Your task to perform on an android device: turn off priority inbox in the gmail app Image 0: 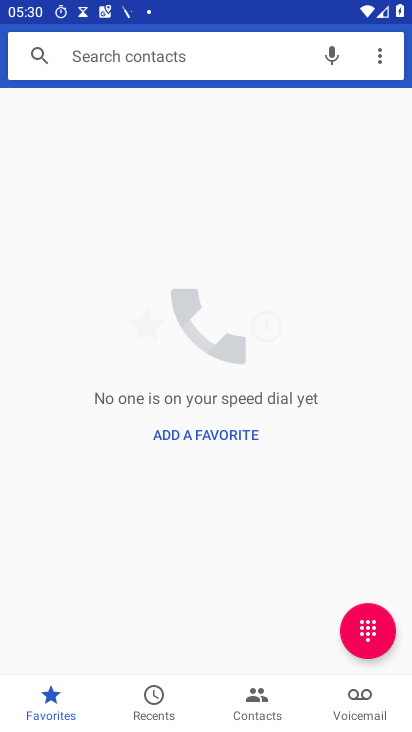
Step 0: press home button
Your task to perform on an android device: turn off priority inbox in the gmail app Image 1: 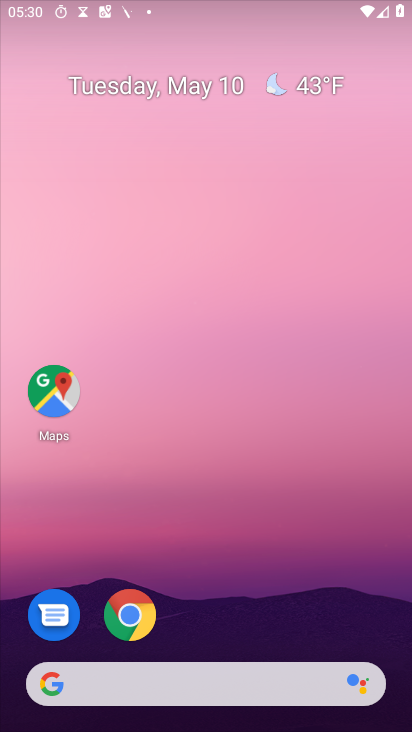
Step 1: drag from (254, 681) to (247, 48)
Your task to perform on an android device: turn off priority inbox in the gmail app Image 2: 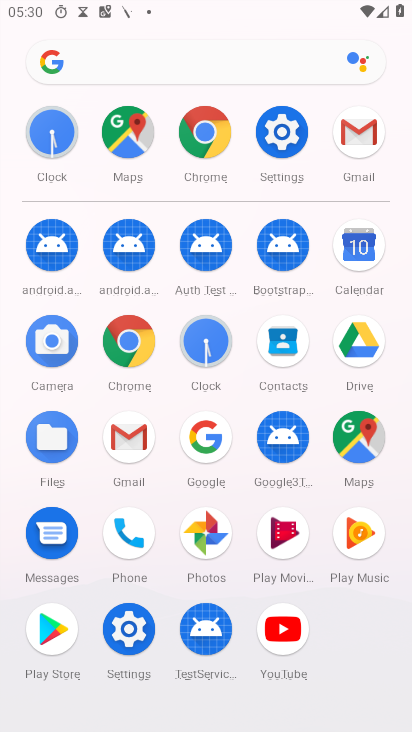
Step 2: click (124, 444)
Your task to perform on an android device: turn off priority inbox in the gmail app Image 3: 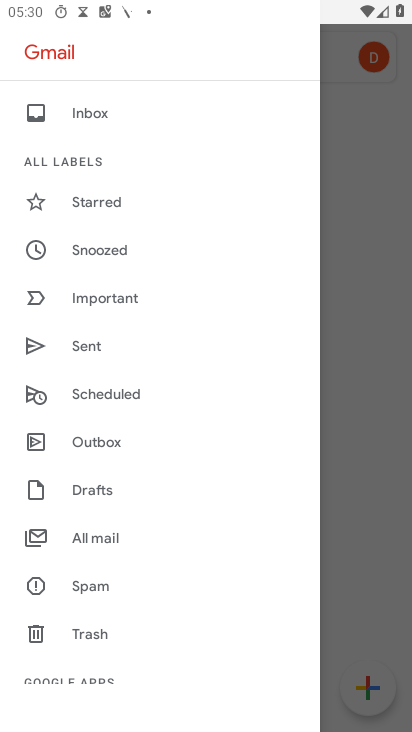
Step 3: drag from (249, 679) to (242, 186)
Your task to perform on an android device: turn off priority inbox in the gmail app Image 4: 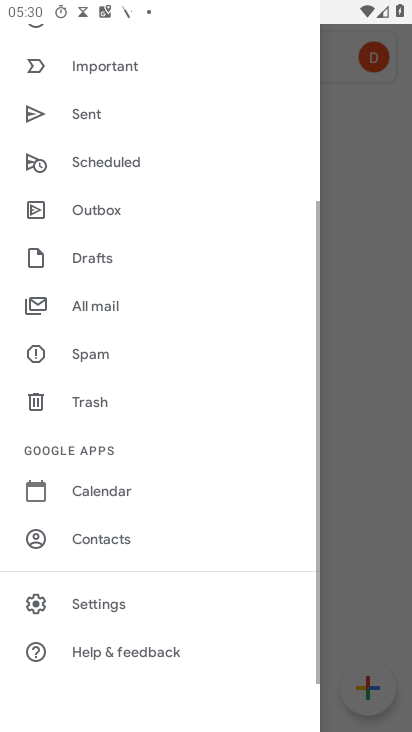
Step 4: click (124, 604)
Your task to perform on an android device: turn off priority inbox in the gmail app Image 5: 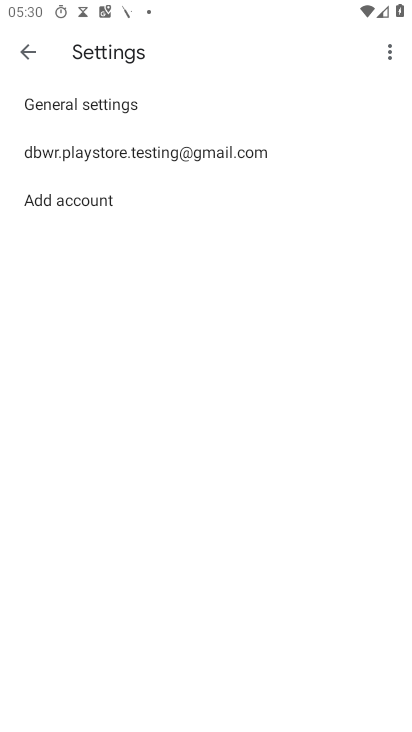
Step 5: click (223, 158)
Your task to perform on an android device: turn off priority inbox in the gmail app Image 6: 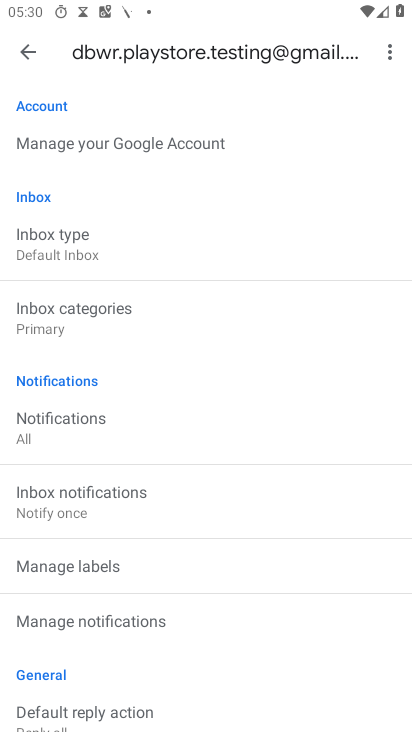
Step 6: click (125, 269)
Your task to perform on an android device: turn off priority inbox in the gmail app Image 7: 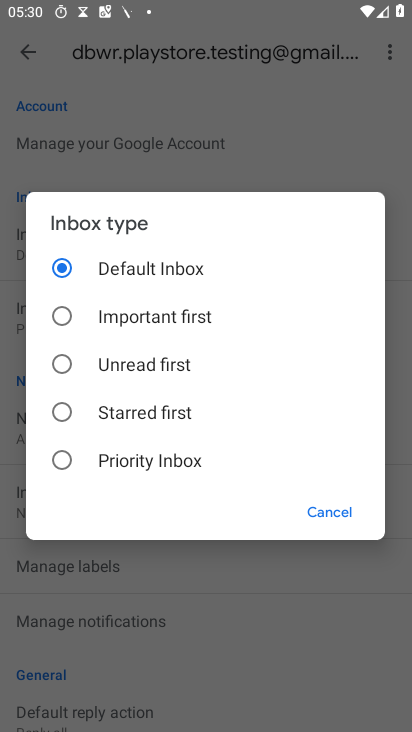
Step 7: task complete